Your task to perform on an android device: find which apps use the phone's location Image 0: 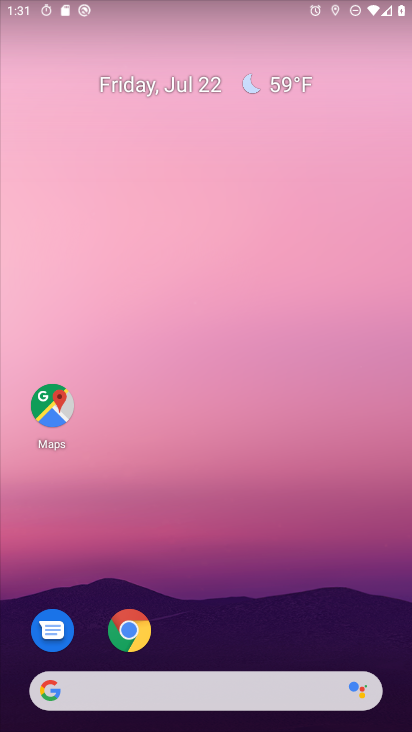
Step 0: press home button
Your task to perform on an android device: find which apps use the phone's location Image 1: 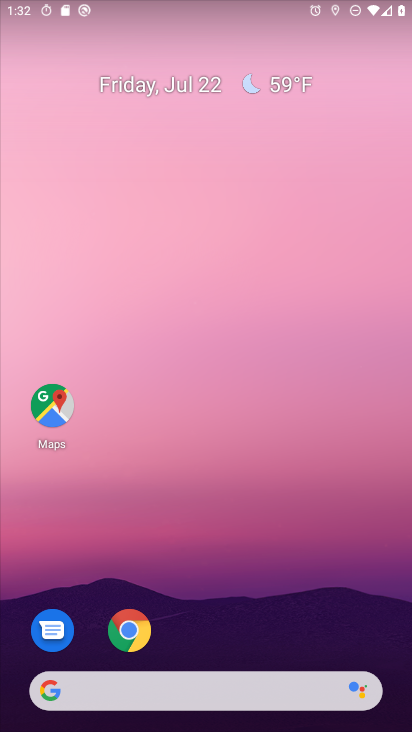
Step 1: drag from (241, 658) to (261, 103)
Your task to perform on an android device: find which apps use the phone's location Image 2: 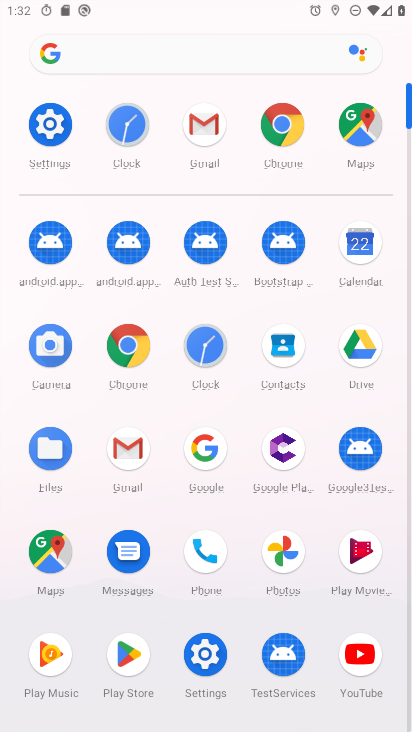
Step 2: click (40, 118)
Your task to perform on an android device: find which apps use the phone's location Image 3: 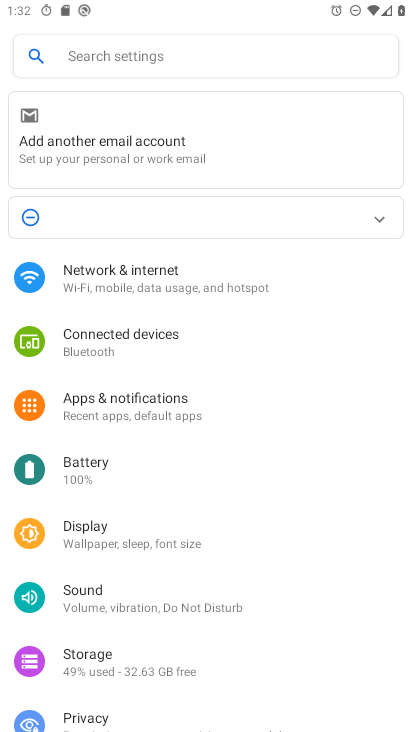
Step 3: drag from (307, 579) to (341, 96)
Your task to perform on an android device: find which apps use the phone's location Image 4: 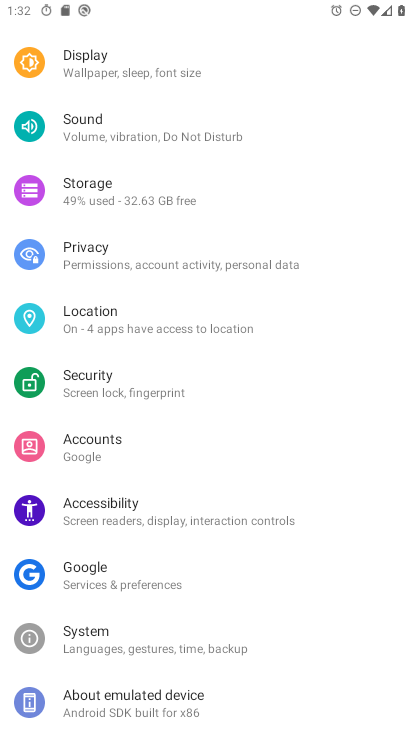
Step 4: click (87, 318)
Your task to perform on an android device: find which apps use the phone's location Image 5: 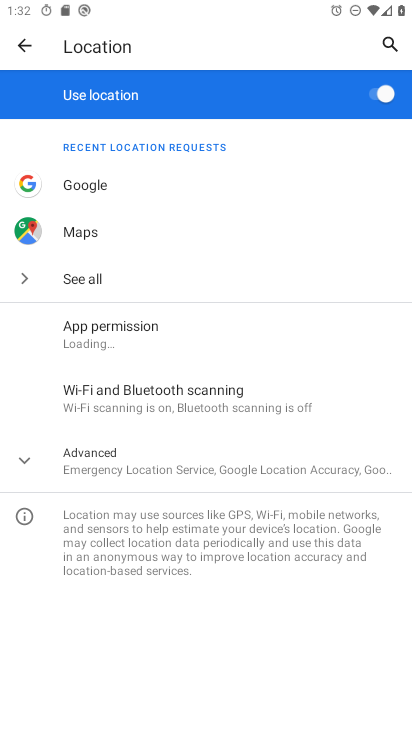
Step 5: click (96, 327)
Your task to perform on an android device: find which apps use the phone's location Image 6: 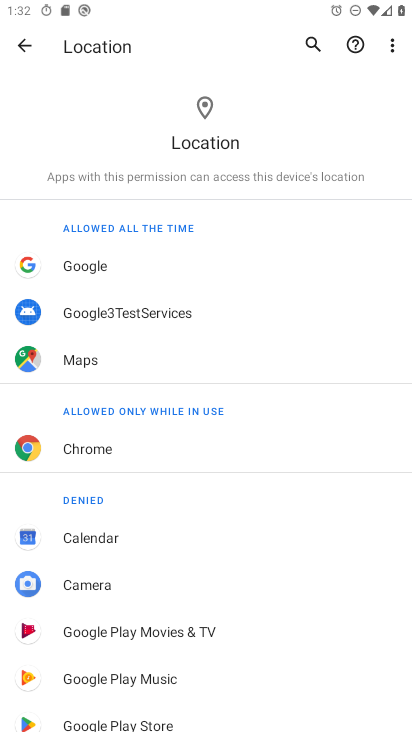
Step 6: task complete